Your task to perform on an android device: What's the news in Paraguay? Image 0: 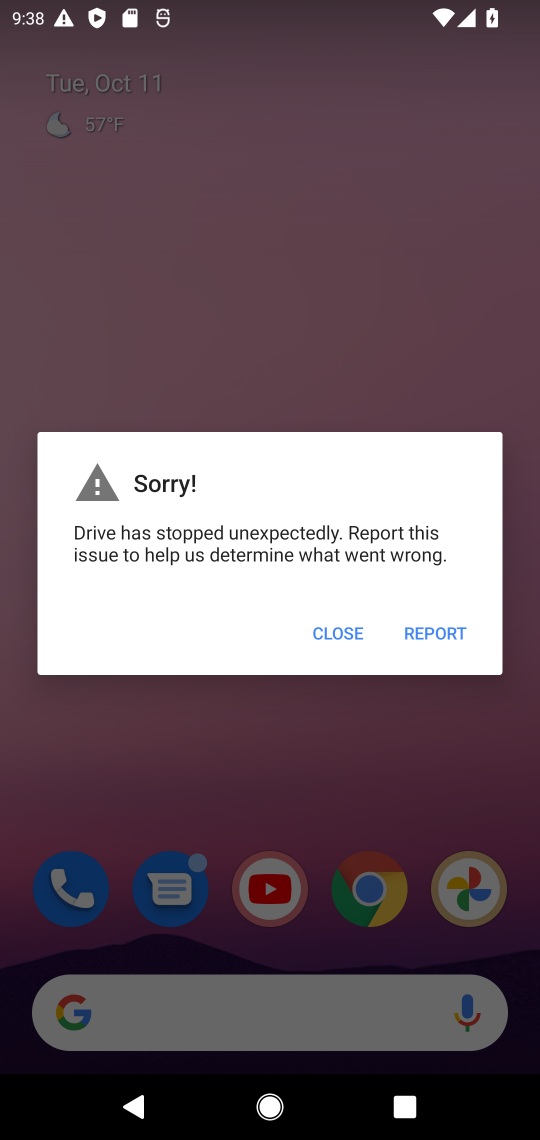
Step 0: press home button
Your task to perform on an android device: What's the news in Paraguay? Image 1: 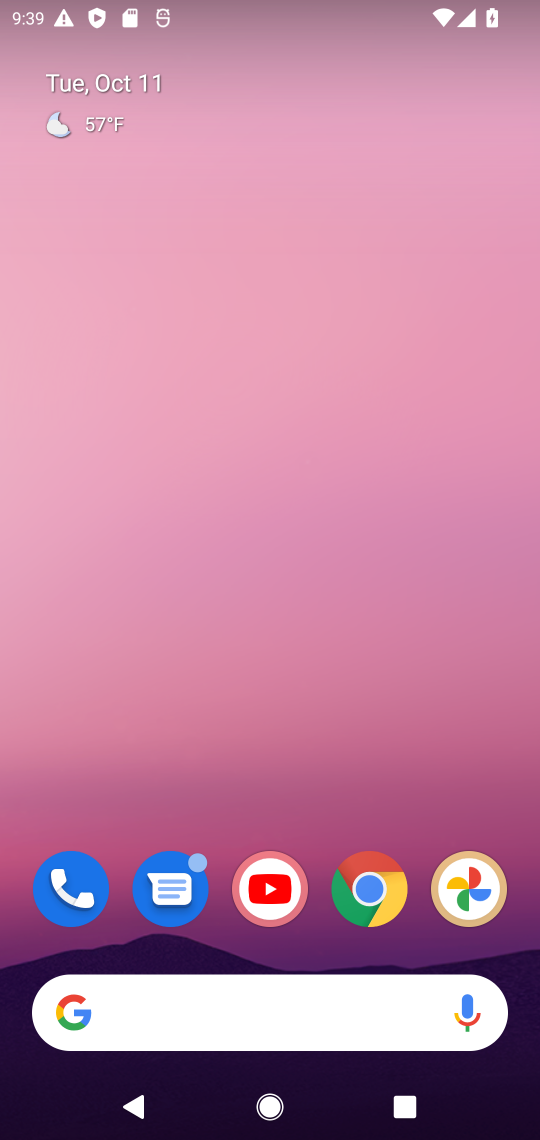
Step 1: click (243, 1017)
Your task to perform on an android device: What's the news in Paraguay? Image 2: 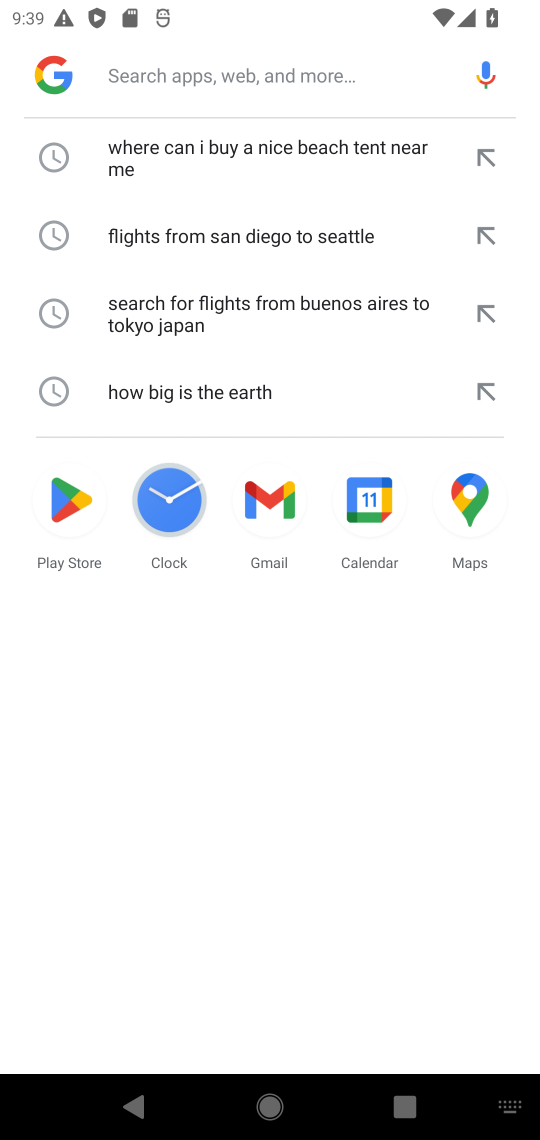
Step 2: type "What's the news in Paraguay?"
Your task to perform on an android device: What's the news in Paraguay? Image 3: 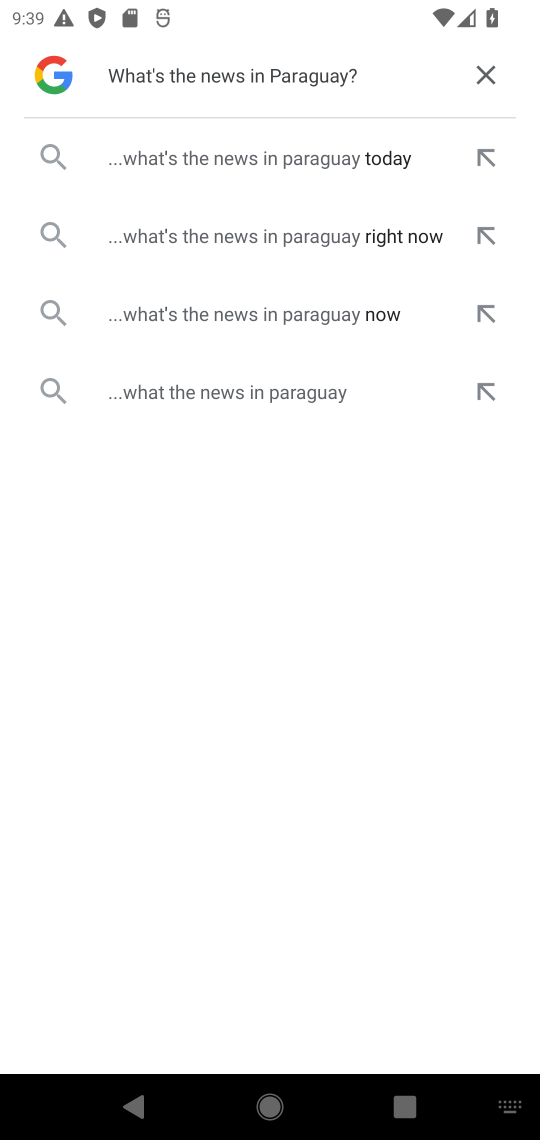
Step 3: click (241, 162)
Your task to perform on an android device: What's the news in Paraguay? Image 4: 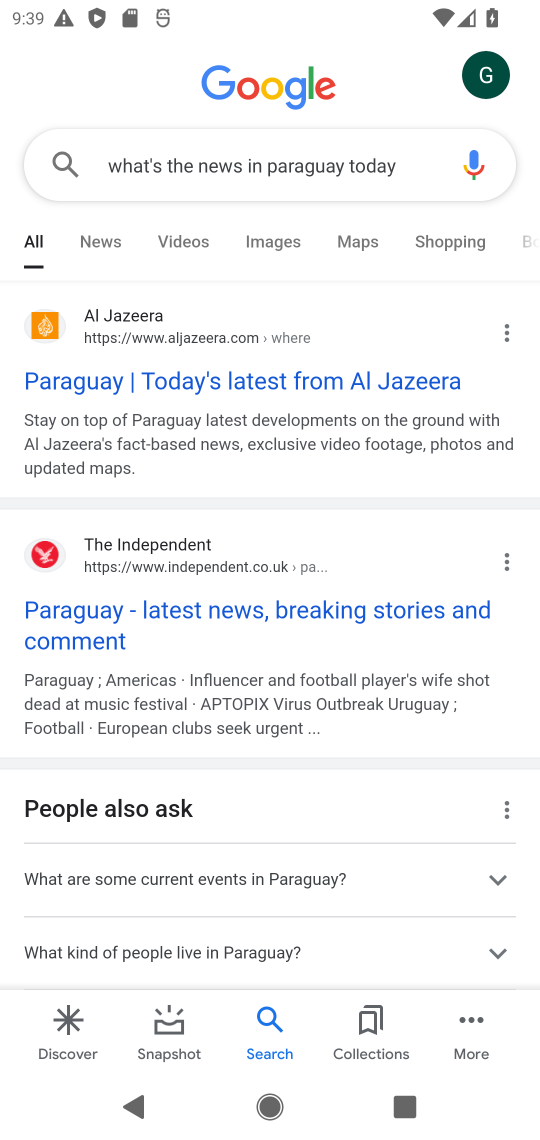
Step 4: click (186, 380)
Your task to perform on an android device: What's the news in Paraguay? Image 5: 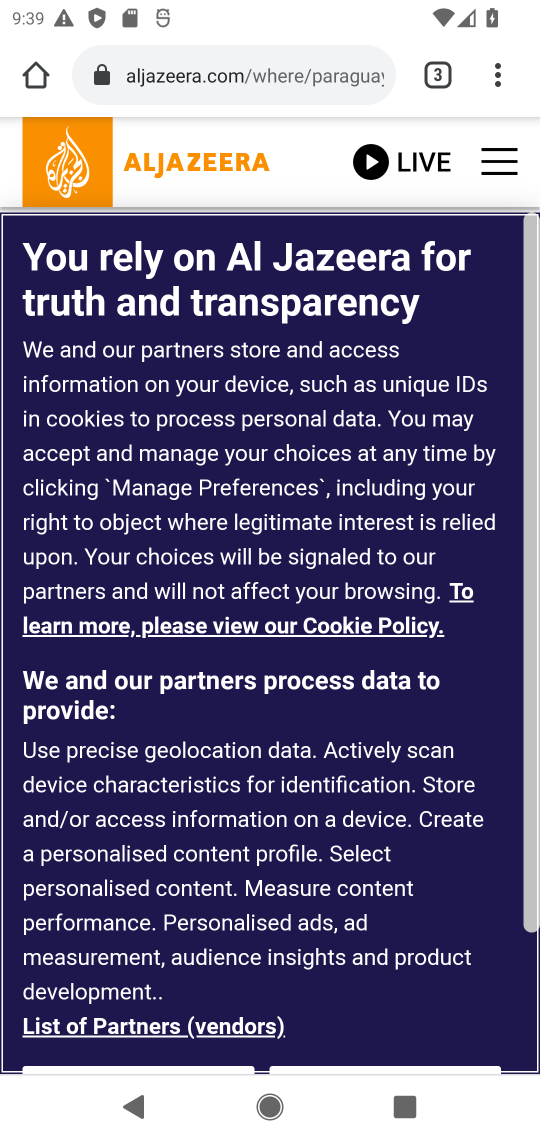
Step 5: drag from (349, 1026) to (298, 706)
Your task to perform on an android device: What's the news in Paraguay? Image 6: 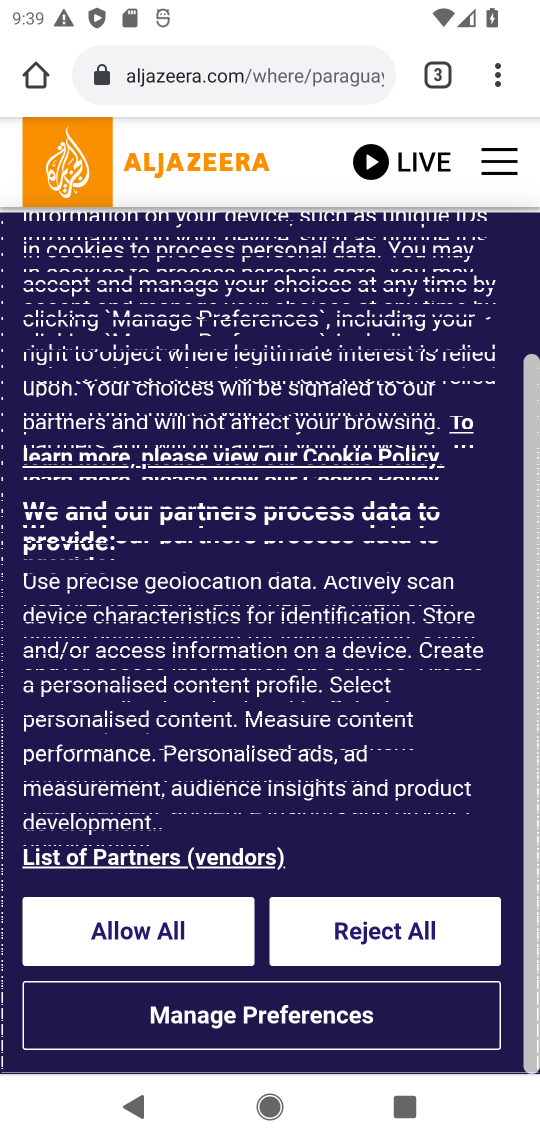
Step 6: click (176, 922)
Your task to perform on an android device: What's the news in Paraguay? Image 7: 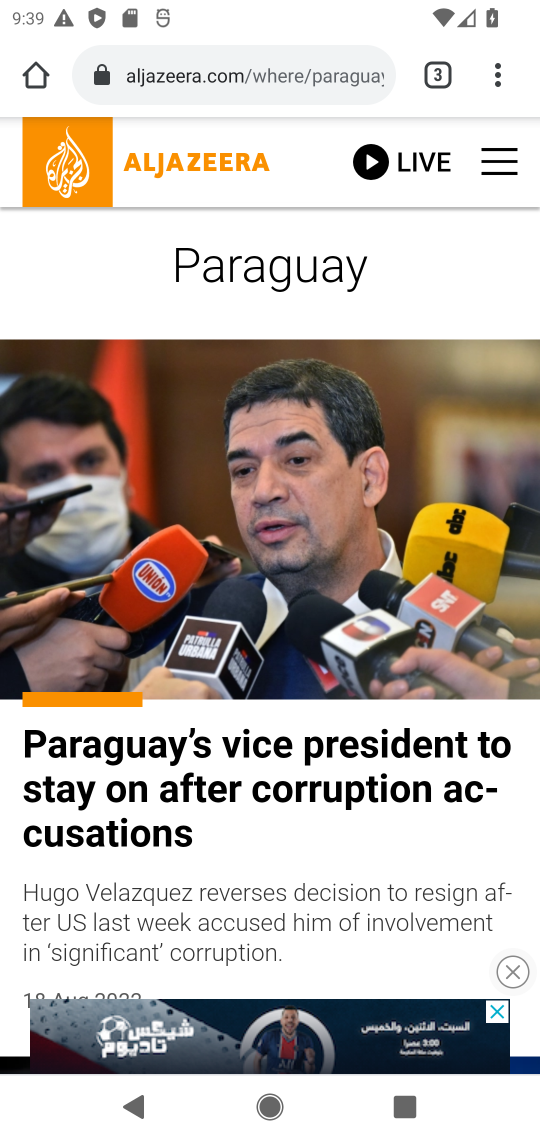
Step 7: task complete